Your task to perform on an android device: Show me popular videos on Youtube Image 0: 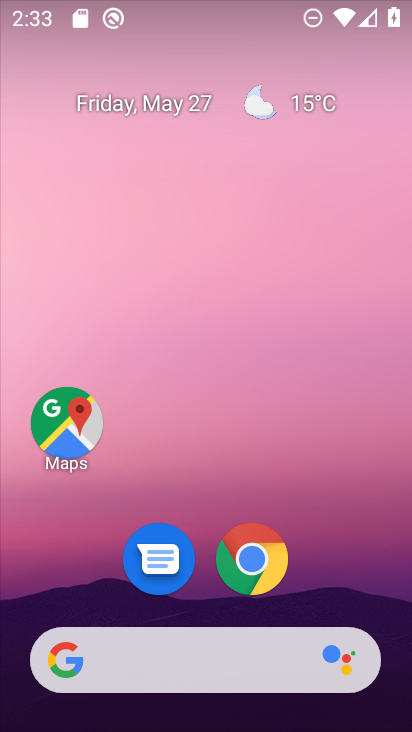
Step 0: drag from (319, 657) to (300, 1)
Your task to perform on an android device: Show me popular videos on Youtube Image 1: 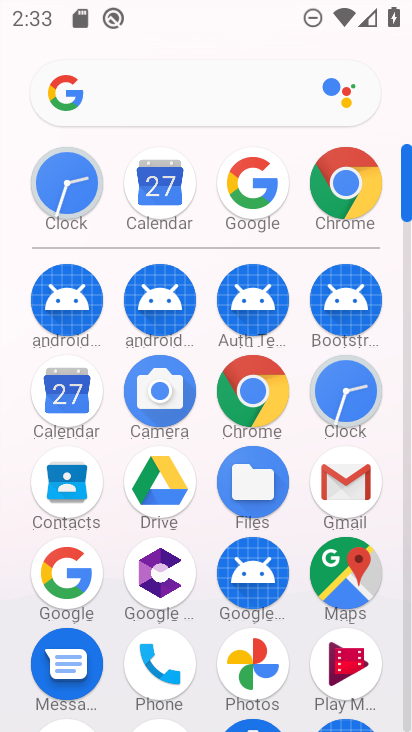
Step 1: drag from (302, 608) to (308, 178)
Your task to perform on an android device: Show me popular videos on Youtube Image 2: 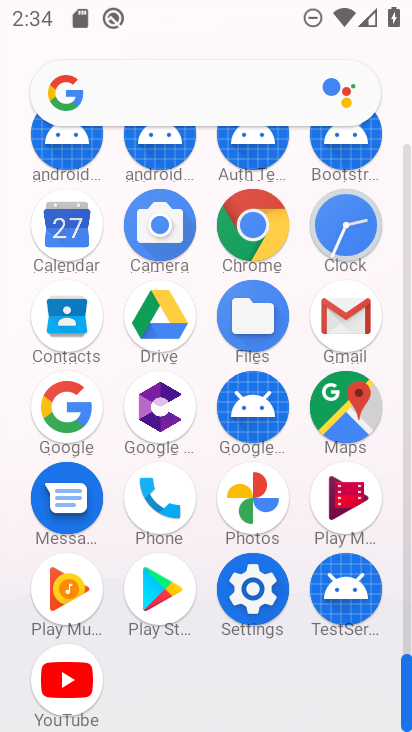
Step 2: click (59, 680)
Your task to perform on an android device: Show me popular videos on Youtube Image 3: 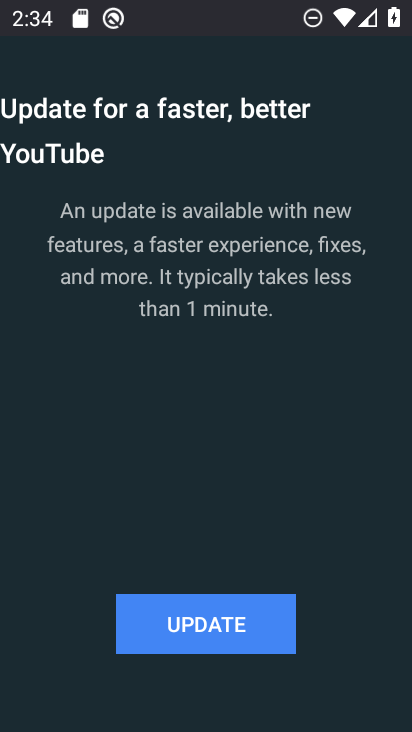
Step 3: click (201, 614)
Your task to perform on an android device: Show me popular videos on Youtube Image 4: 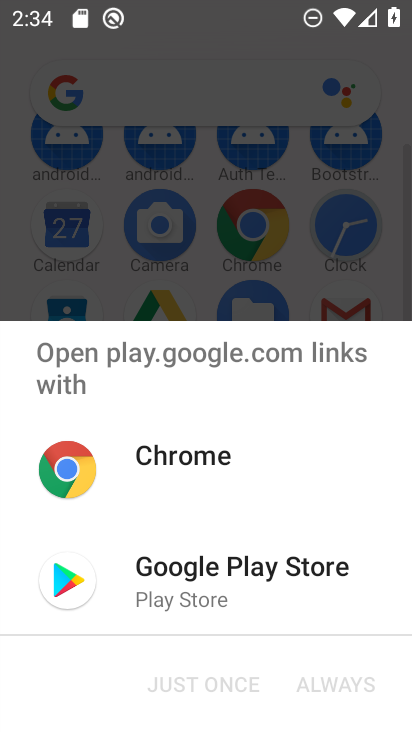
Step 4: click (221, 564)
Your task to perform on an android device: Show me popular videos on Youtube Image 5: 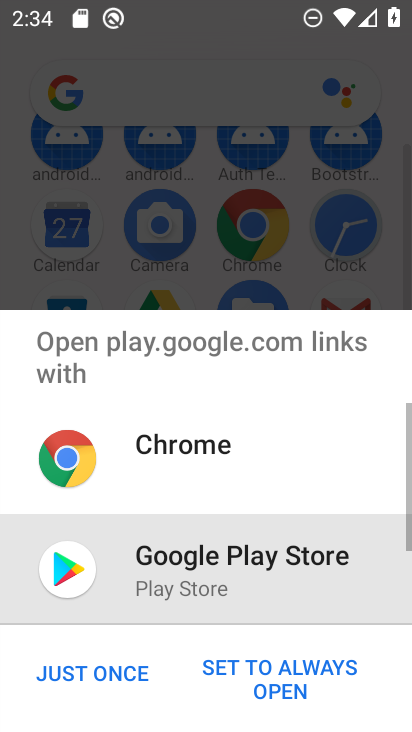
Step 5: click (111, 670)
Your task to perform on an android device: Show me popular videos on Youtube Image 6: 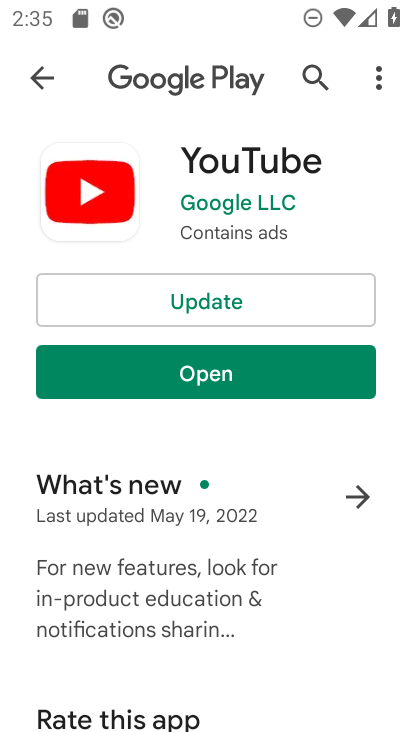
Step 6: click (185, 282)
Your task to perform on an android device: Show me popular videos on Youtube Image 7: 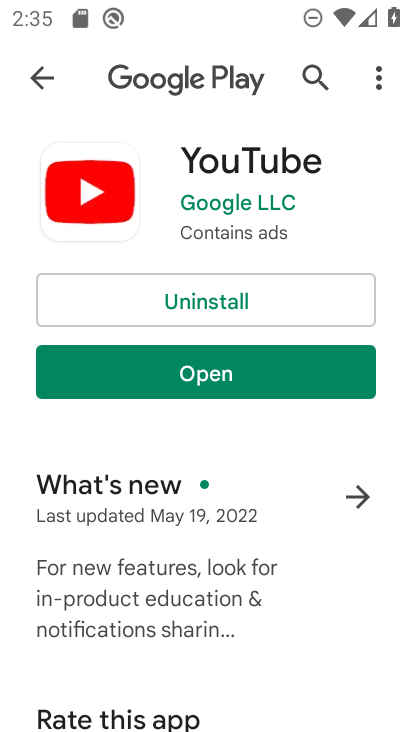
Step 7: click (303, 366)
Your task to perform on an android device: Show me popular videos on Youtube Image 8: 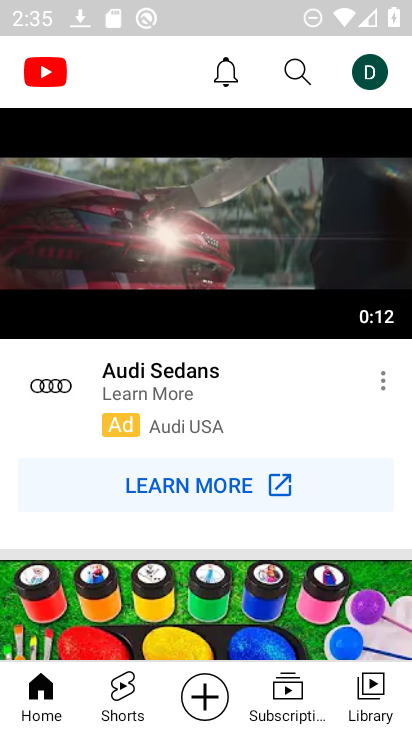
Step 8: task complete